Your task to perform on an android device: toggle wifi Image 0: 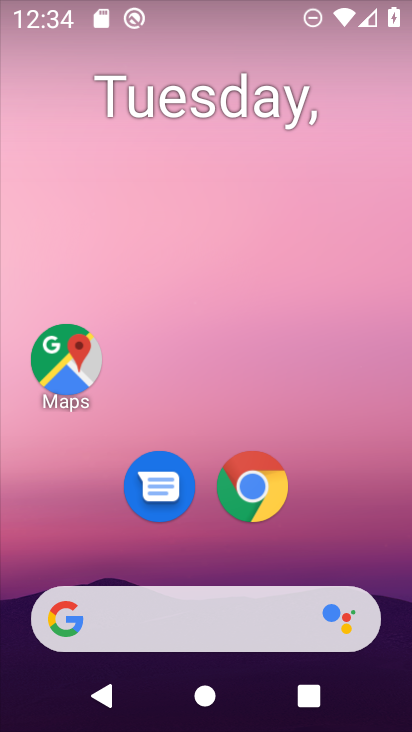
Step 0: drag from (174, 596) to (200, 205)
Your task to perform on an android device: toggle wifi Image 1: 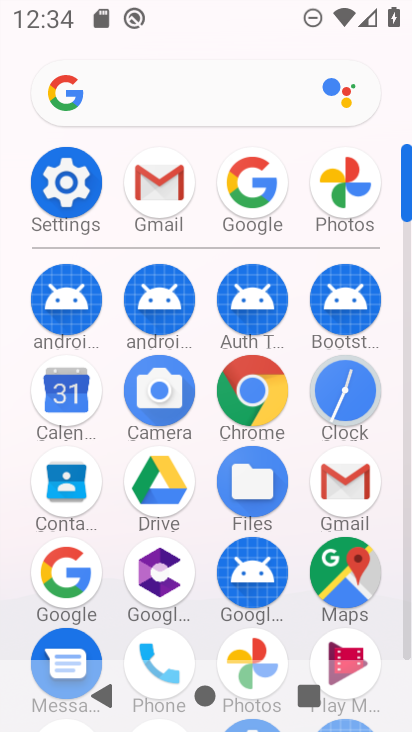
Step 1: click (87, 222)
Your task to perform on an android device: toggle wifi Image 2: 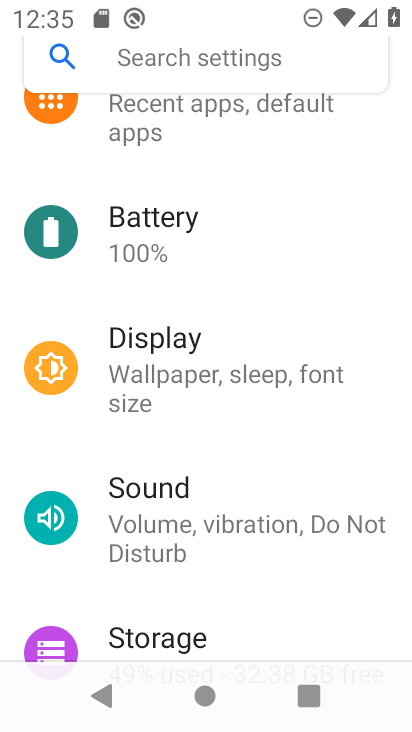
Step 2: drag from (120, 129) to (171, 640)
Your task to perform on an android device: toggle wifi Image 3: 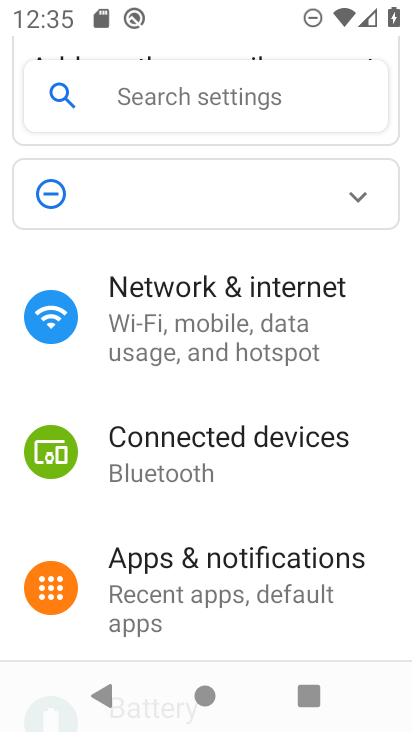
Step 3: click (211, 313)
Your task to perform on an android device: toggle wifi Image 4: 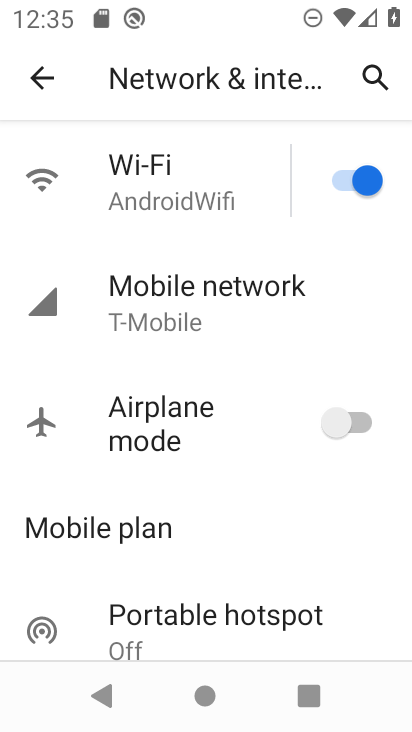
Step 4: click (348, 188)
Your task to perform on an android device: toggle wifi Image 5: 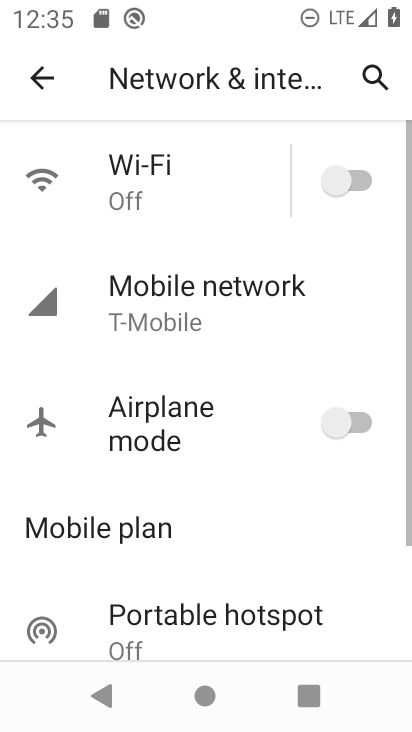
Step 5: task complete